Your task to perform on an android device: Open the map Image 0: 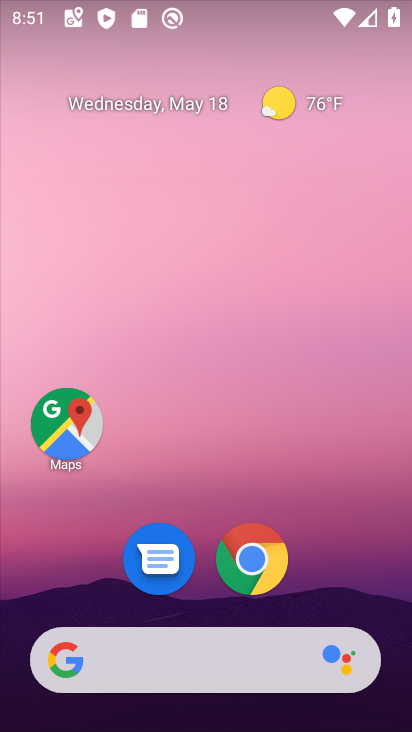
Step 0: click (60, 424)
Your task to perform on an android device: Open the map Image 1: 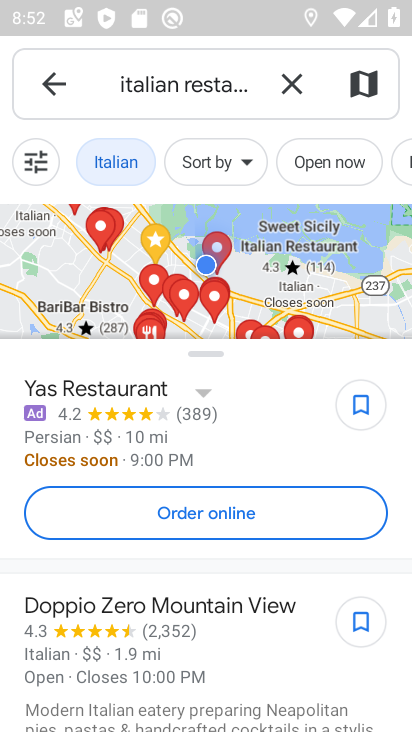
Step 1: task complete